Your task to perform on an android device: Go to battery settings Image 0: 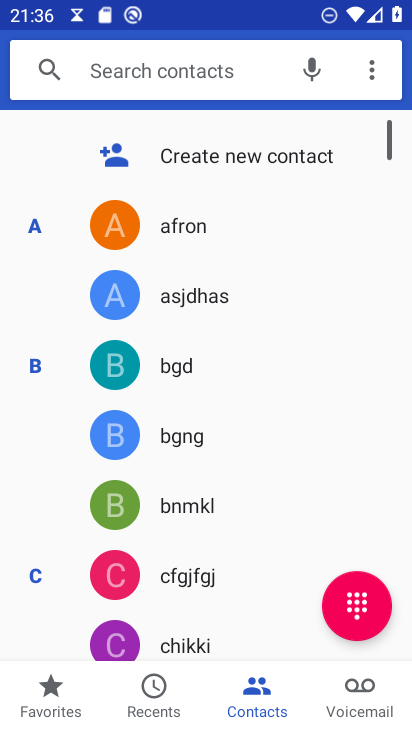
Step 0: press home button
Your task to perform on an android device: Go to battery settings Image 1: 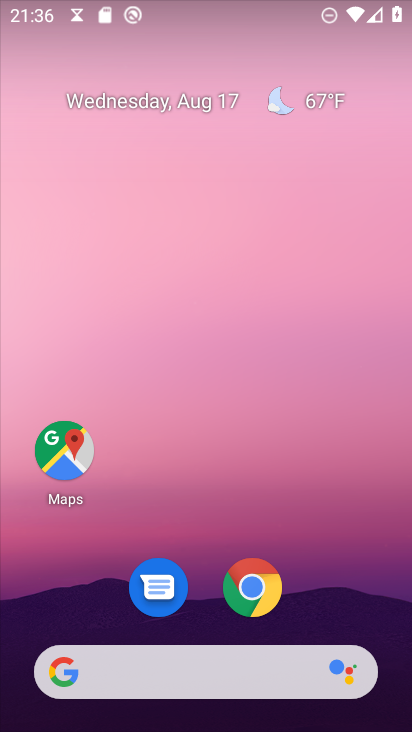
Step 1: drag from (54, 713) to (235, 109)
Your task to perform on an android device: Go to battery settings Image 2: 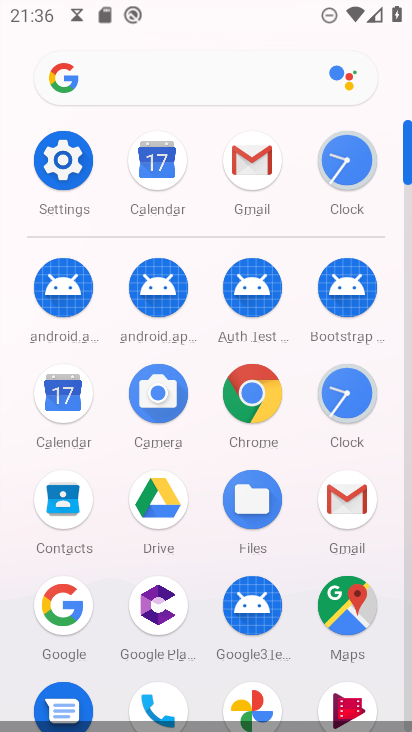
Step 2: click (40, 178)
Your task to perform on an android device: Go to battery settings Image 3: 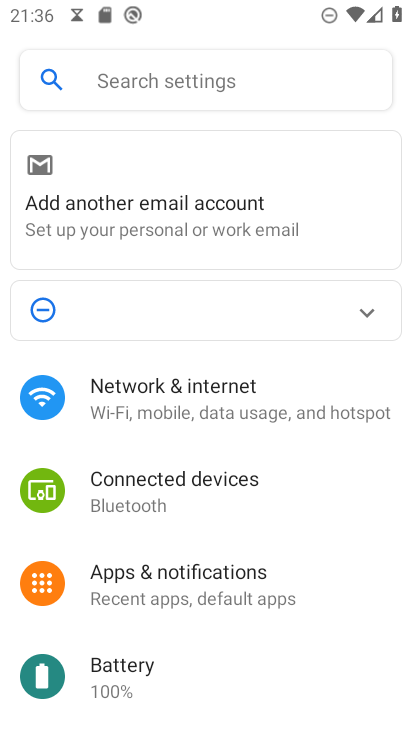
Step 3: click (125, 669)
Your task to perform on an android device: Go to battery settings Image 4: 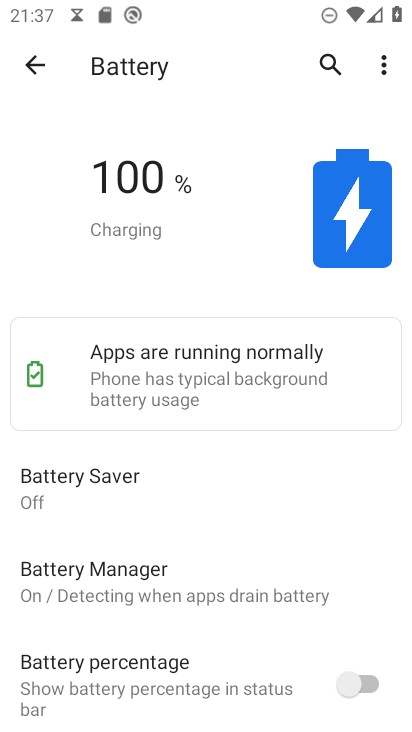
Step 4: task complete